Your task to perform on an android device: delete a single message in the gmail app Image 0: 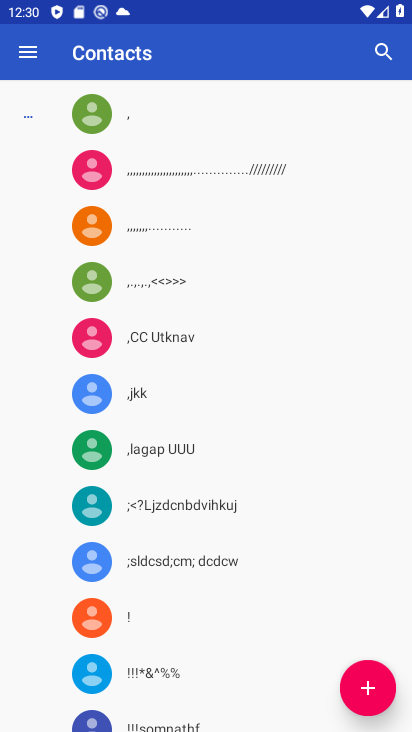
Step 0: press home button
Your task to perform on an android device: delete a single message in the gmail app Image 1: 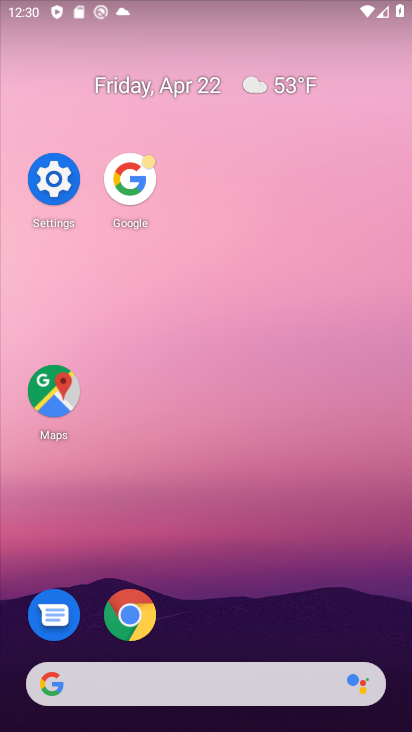
Step 1: drag from (261, 621) to (240, 72)
Your task to perform on an android device: delete a single message in the gmail app Image 2: 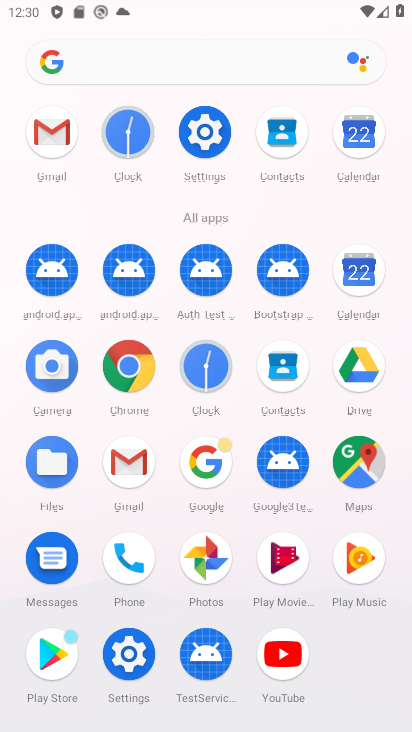
Step 2: drag from (130, 463) to (206, 216)
Your task to perform on an android device: delete a single message in the gmail app Image 3: 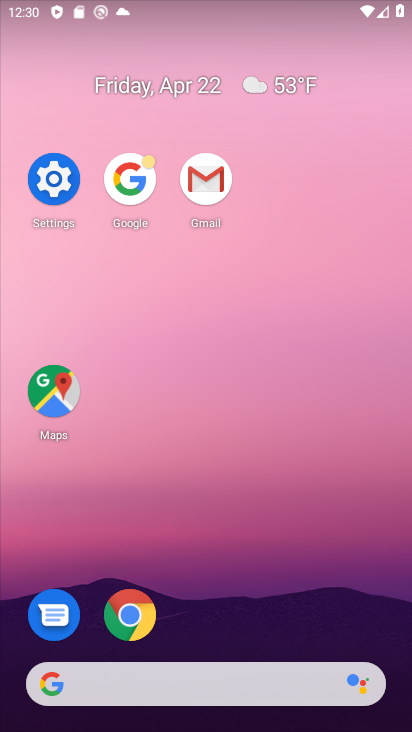
Step 3: click (205, 184)
Your task to perform on an android device: delete a single message in the gmail app Image 4: 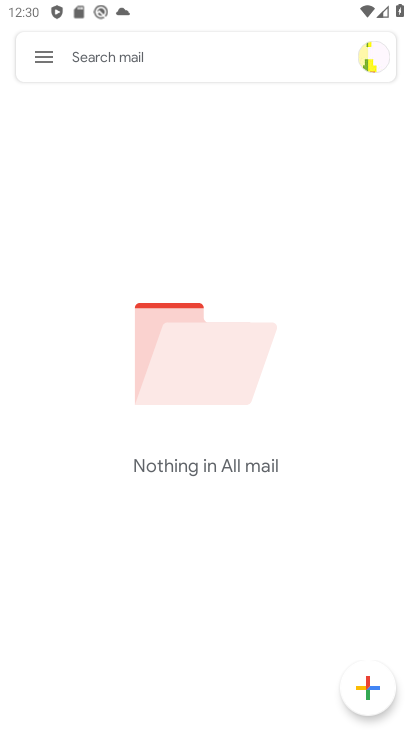
Step 4: click (34, 58)
Your task to perform on an android device: delete a single message in the gmail app Image 5: 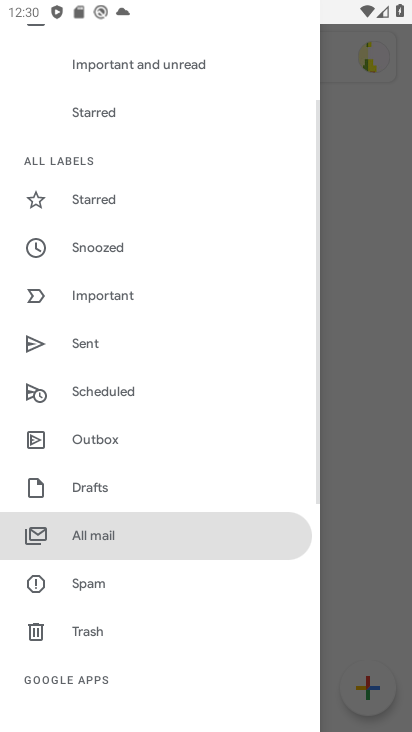
Step 5: click (135, 524)
Your task to perform on an android device: delete a single message in the gmail app Image 6: 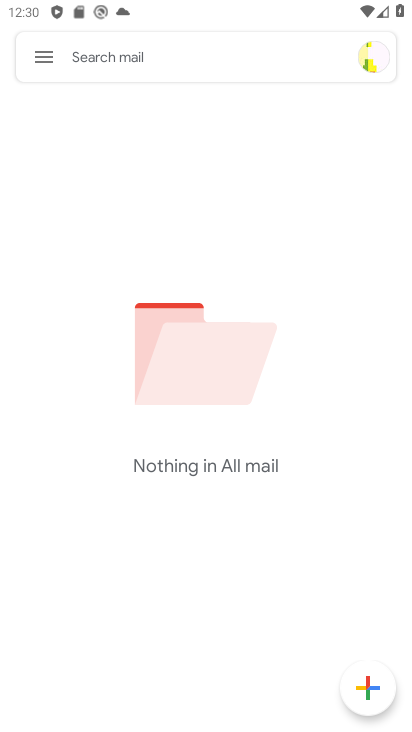
Step 6: task complete